Your task to perform on an android device: turn pop-ups off in chrome Image 0: 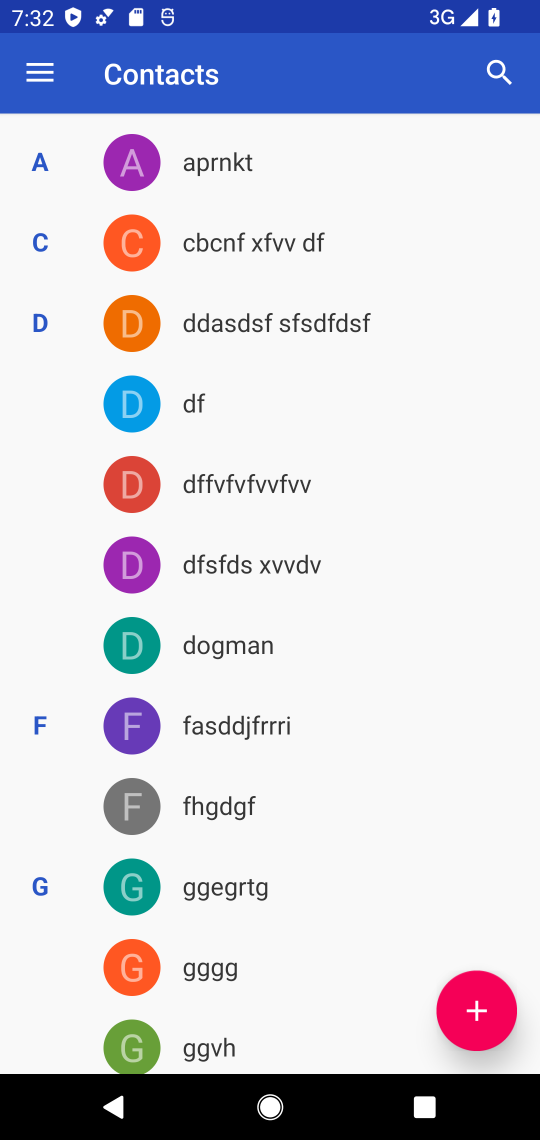
Step 0: press home button
Your task to perform on an android device: turn pop-ups off in chrome Image 1: 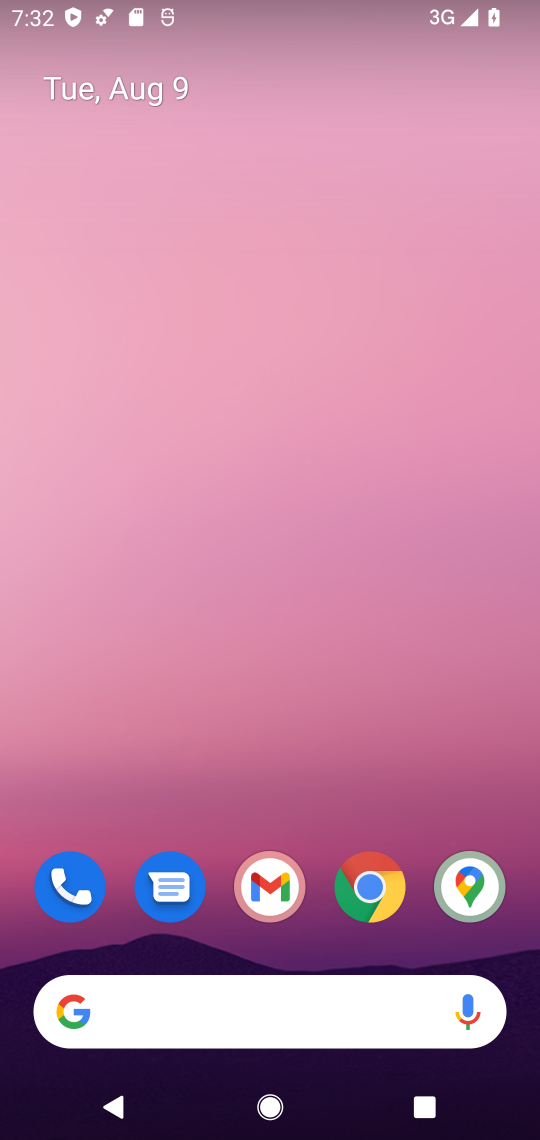
Step 1: click (376, 891)
Your task to perform on an android device: turn pop-ups off in chrome Image 2: 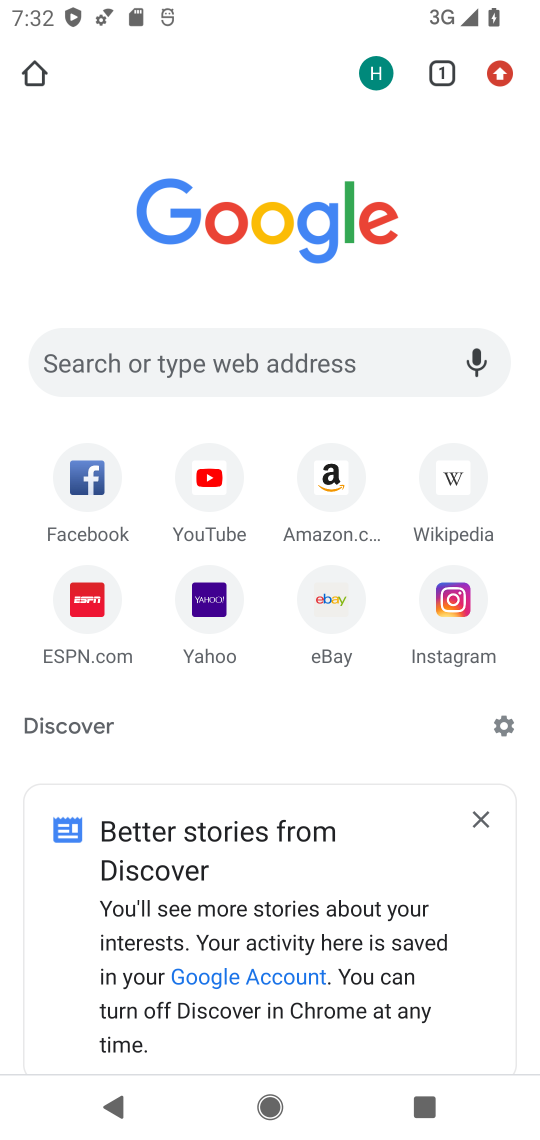
Step 2: click (499, 67)
Your task to perform on an android device: turn pop-ups off in chrome Image 3: 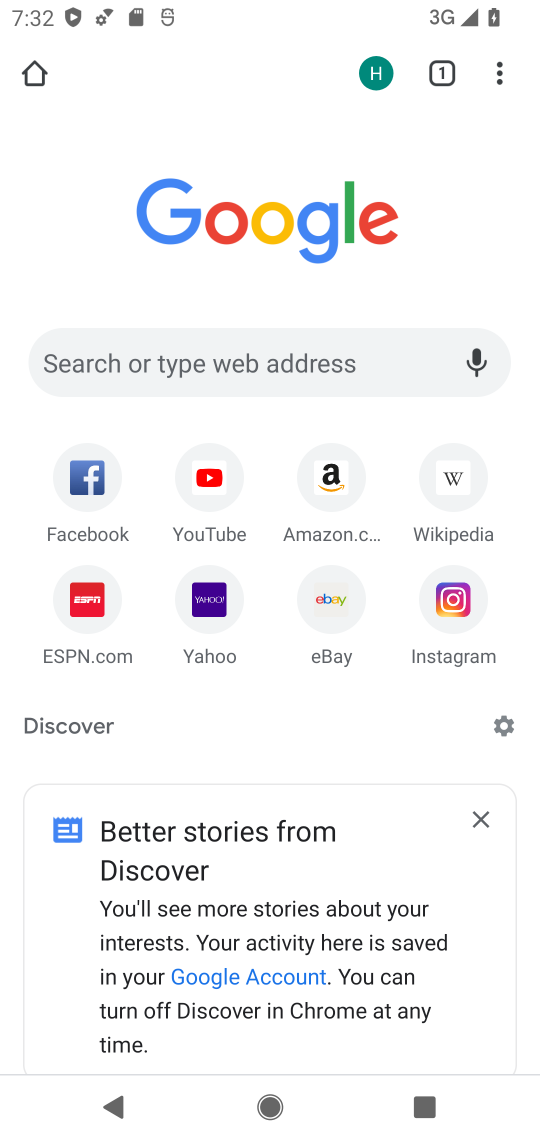
Step 3: click (499, 67)
Your task to perform on an android device: turn pop-ups off in chrome Image 4: 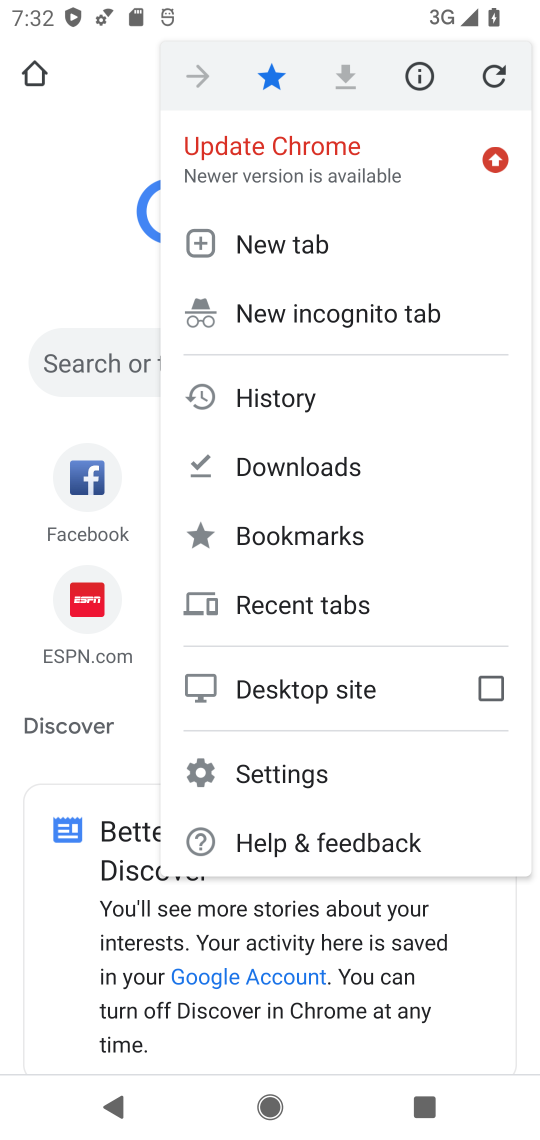
Step 4: click (341, 768)
Your task to perform on an android device: turn pop-ups off in chrome Image 5: 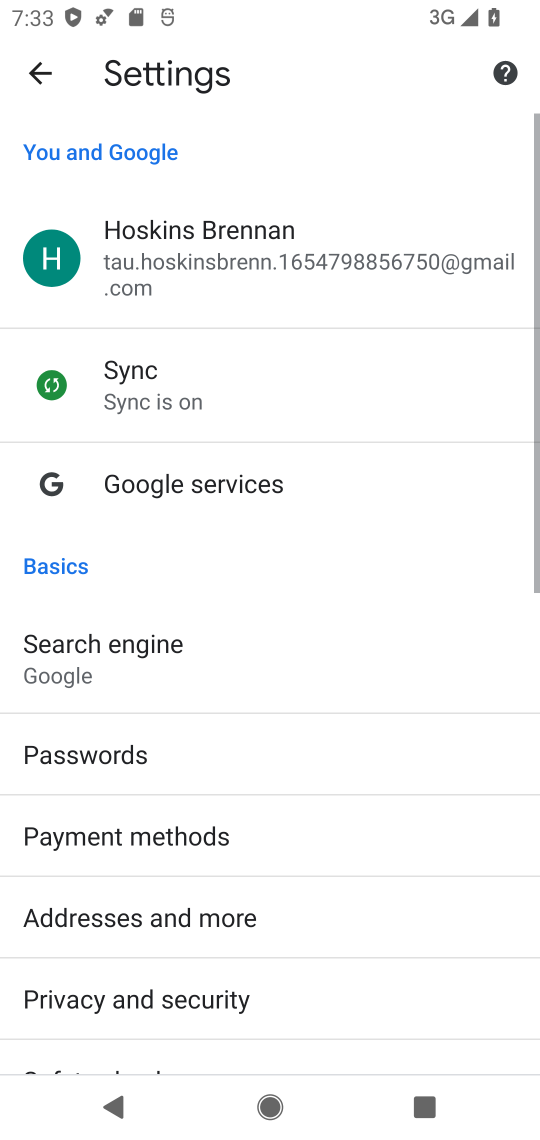
Step 5: drag from (333, 911) to (375, 12)
Your task to perform on an android device: turn pop-ups off in chrome Image 6: 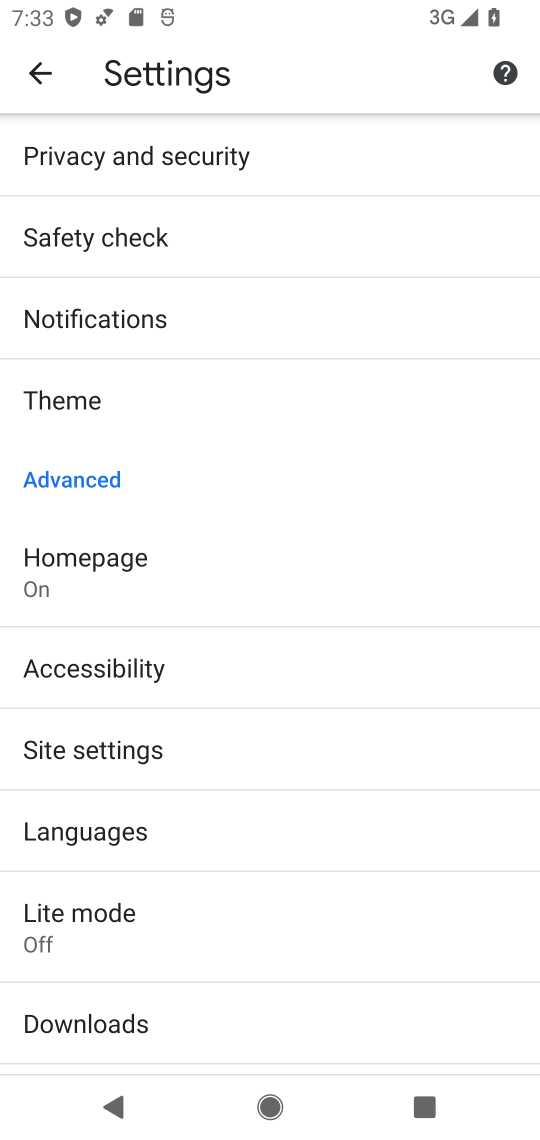
Step 6: click (160, 729)
Your task to perform on an android device: turn pop-ups off in chrome Image 7: 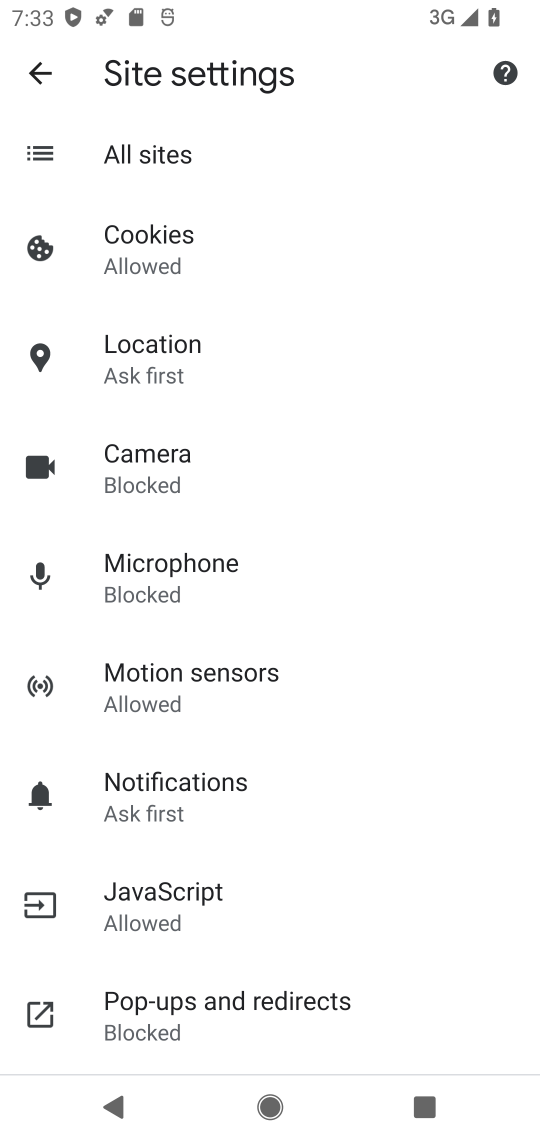
Step 7: click (248, 1006)
Your task to perform on an android device: turn pop-ups off in chrome Image 8: 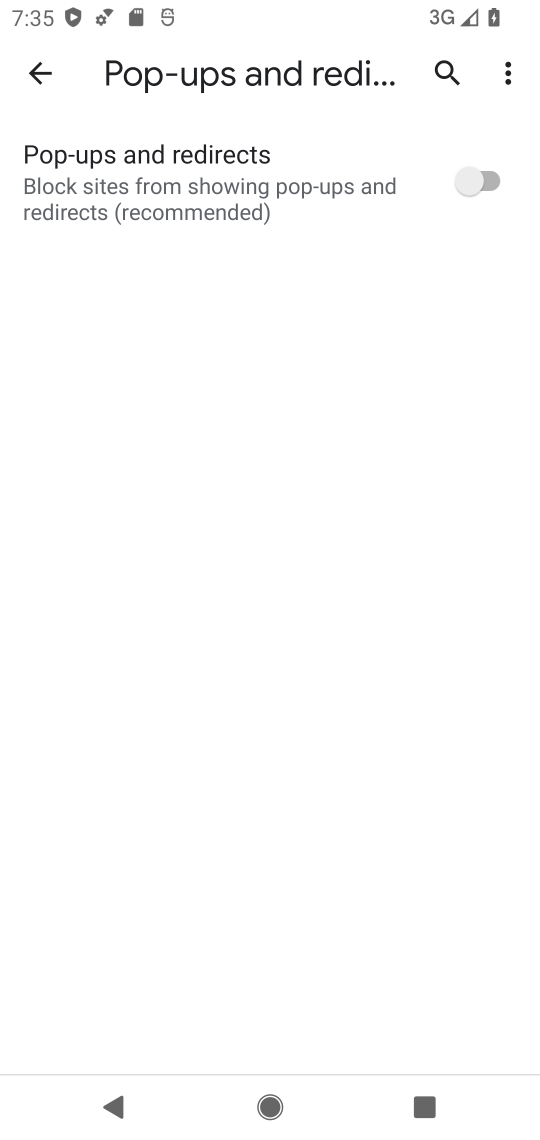
Step 8: task complete